Your task to perform on an android device: Go to ESPN.com Image 0: 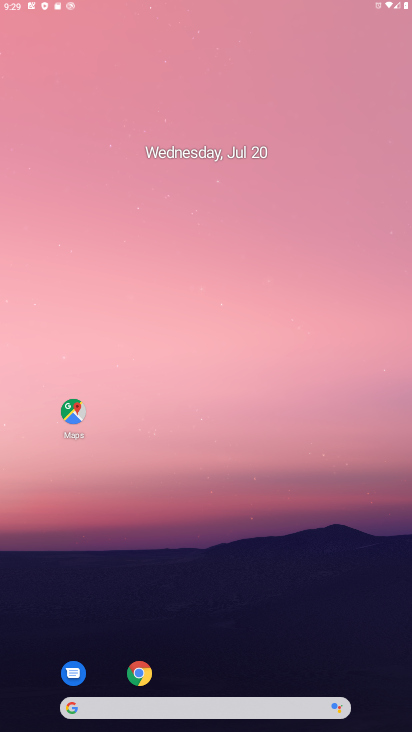
Step 0: click (189, 432)
Your task to perform on an android device: Go to ESPN.com Image 1: 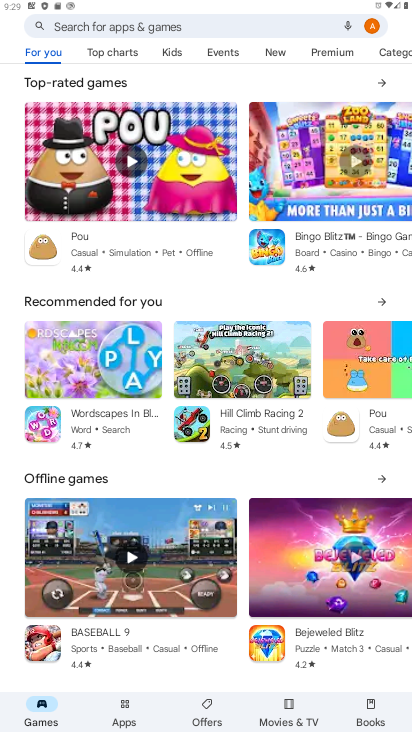
Step 1: press home button
Your task to perform on an android device: Go to ESPN.com Image 2: 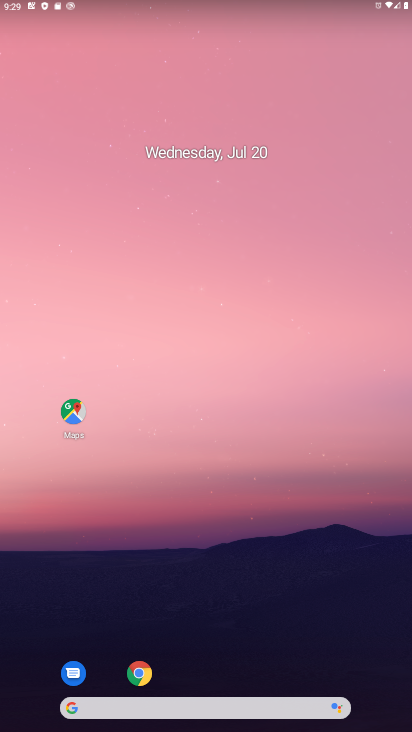
Step 2: drag from (222, 729) to (222, 215)
Your task to perform on an android device: Go to ESPN.com Image 3: 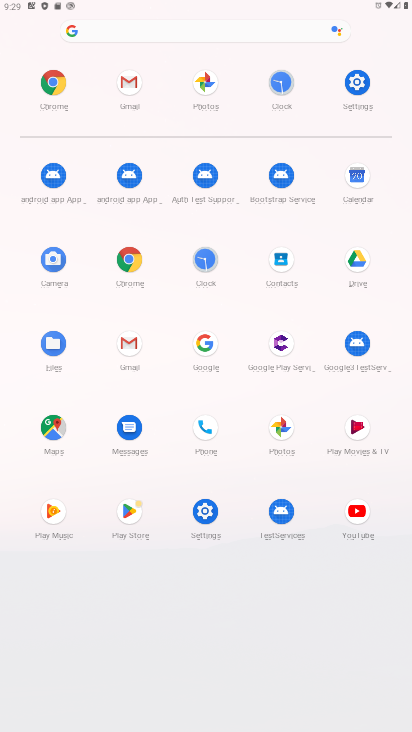
Step 3: click (51, 78)
Your task to perform on an android device: Go to ESPN.com Image 4: 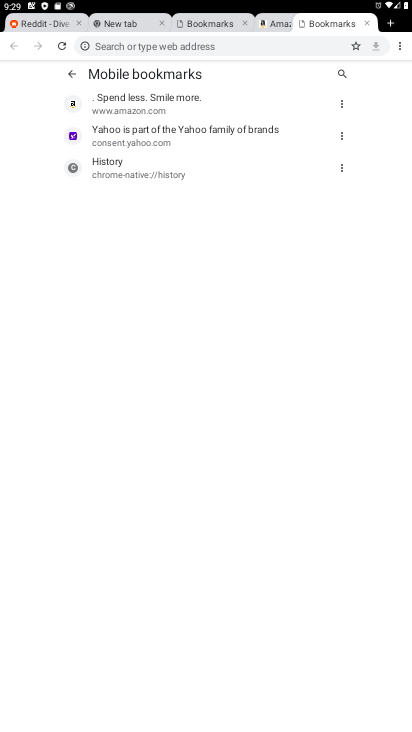
Step 4: click (397, 40)
Your task to perform on an android device: Go to ESPN.com Image 5: 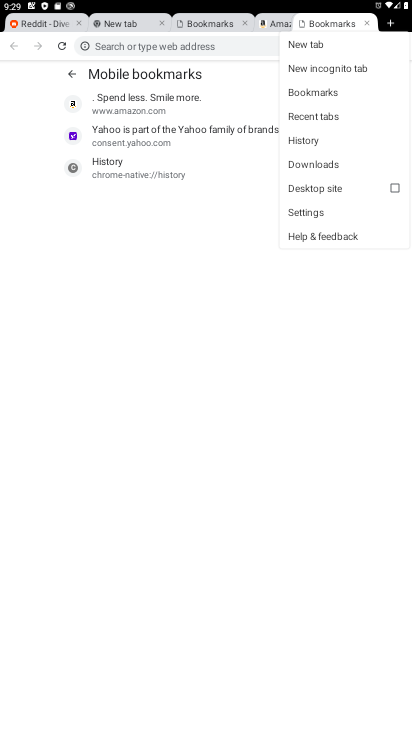
Step 5: click (327, 47)
Your task to perform on an android device: Go to ESPN.com Image 6: 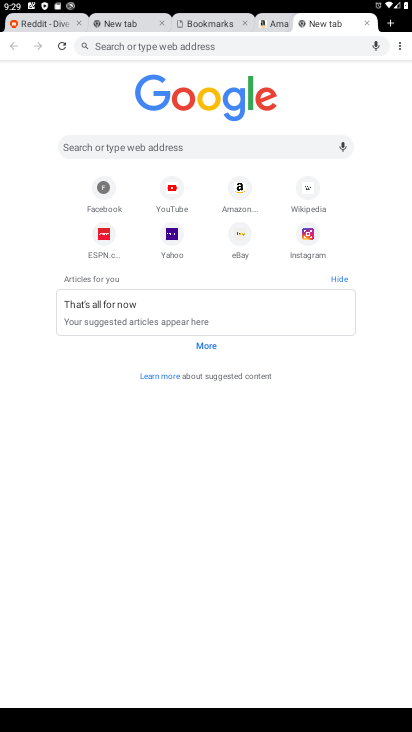
Step 6: click (104, 236)
Your task to perform on an android device: Go to ESPN.com Image 7: 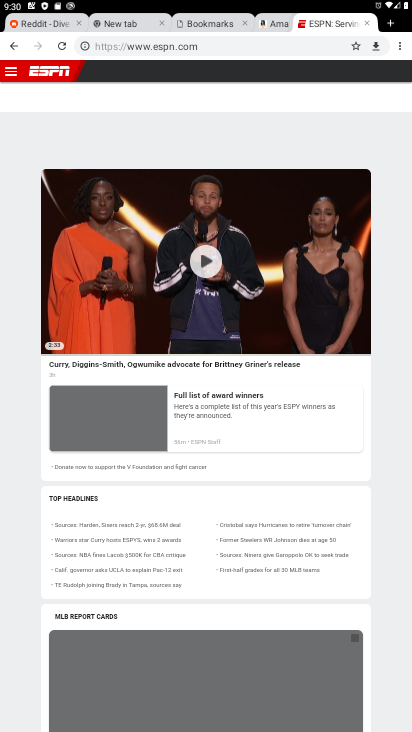
Step 7: task complete